Your task to perform on an android device: turn notification dots off Image 0: 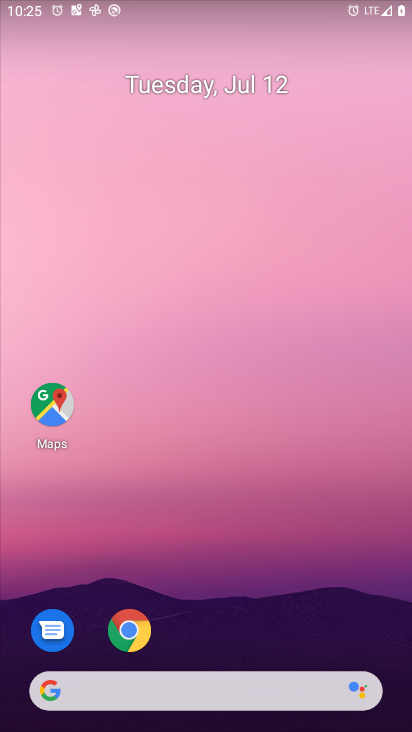
Step 0: press home button
Your task to perform on an android device: turn notification dots off Image 1: 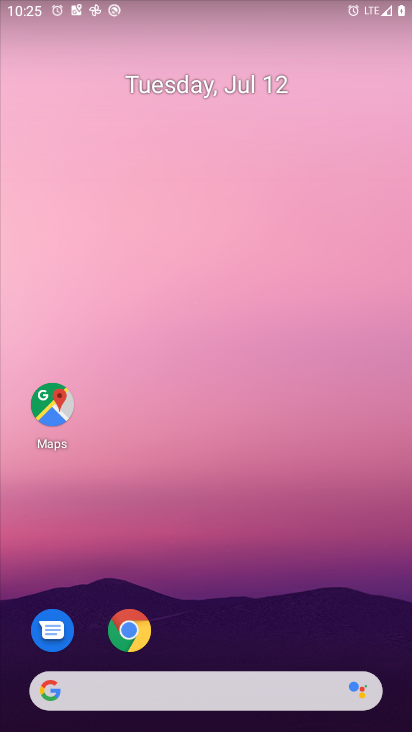
Step 1: press home button
Your task to perform on an android device: turn notification dots off Image 2: 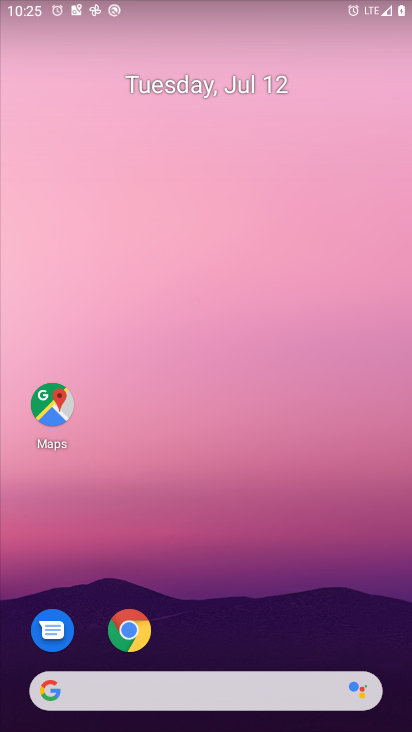
Step 2: drag from (272, 604) to (313, 92)
Your task to perform on an android device: turn notification dots off Image 3: 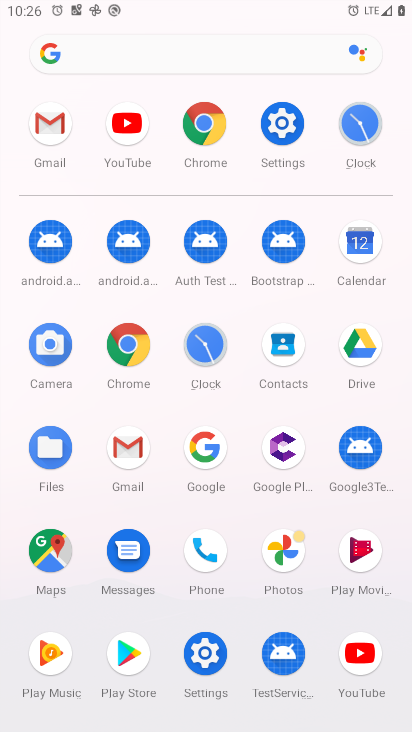
Step 3: click (282, 127)
Your task to perform on an android device: turn notification dots off Image 4: 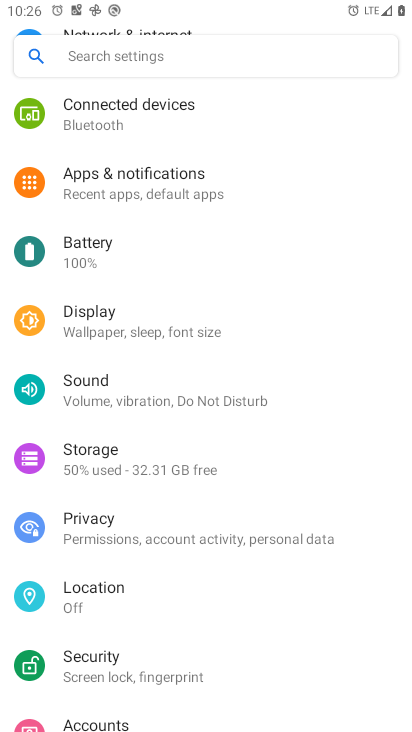
Step 4: click (194, 178)
Your task to perform on an android device: turn notification dots off Image 5: 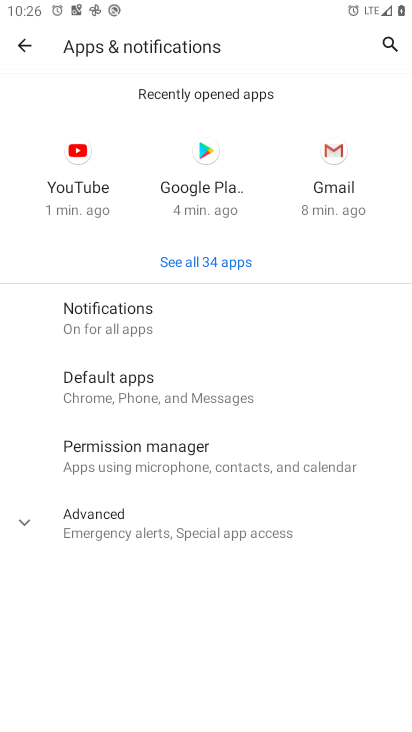
Step 5: click (28, 522)
Your task to perform on an android device: turn notification dots off Image 6: 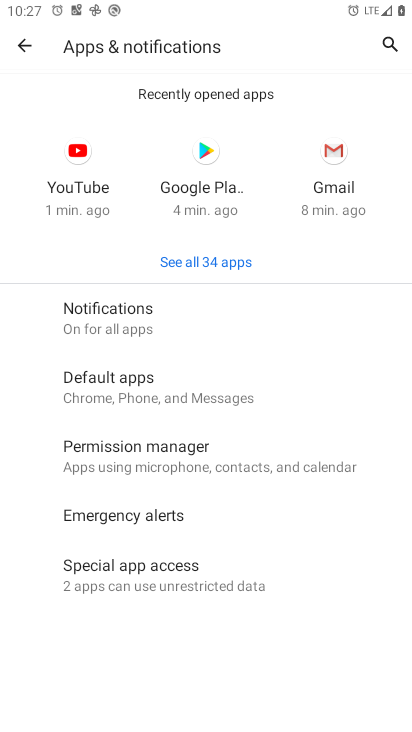
Step 6: click (133, 306)
Your task to perform on an android device: turn notification dots off Image 7: 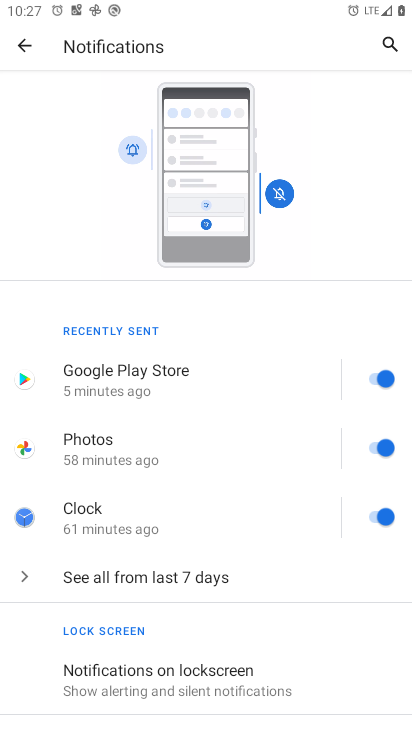
Step 7: drag from (174, 627) to (174, 222)
Your task to perform on an android device: turn notification dots off Image 8: 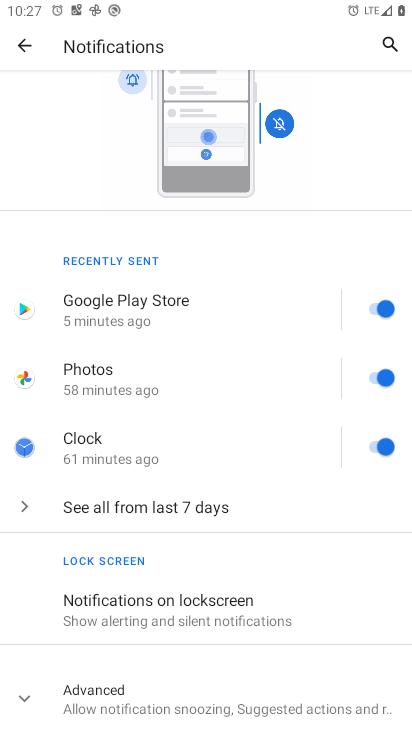
Step 8: click (39, 698)
Your task to perform on an android device: turn notification dots off Image 9: 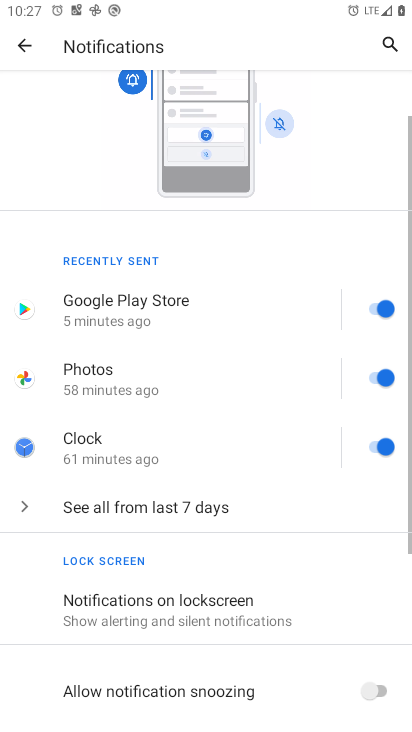
Step 9: drag from (315, 663) to (345, 330)
Your task to perform on an android device: turn notification dots off Image 10: 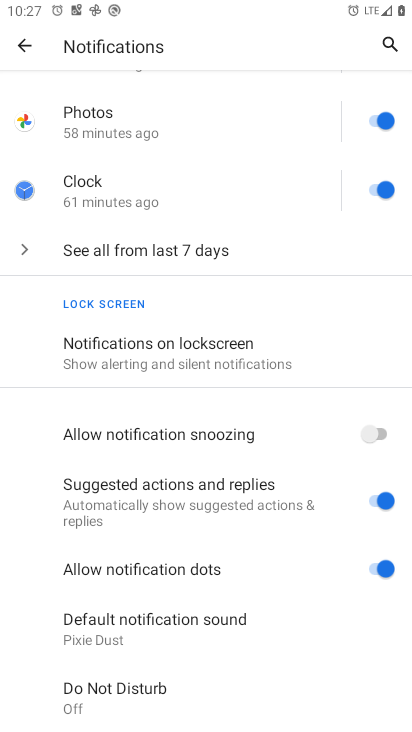
Step 10: click (382, 563)
Your task to perform on an android device: turn notification dots off Image 11: 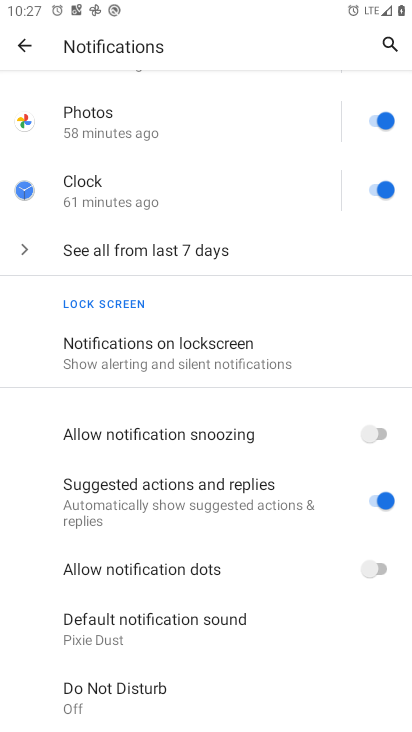
Step 11: task complete